Your task to perform on an android device: Find coffee shops on Maps Image 0: 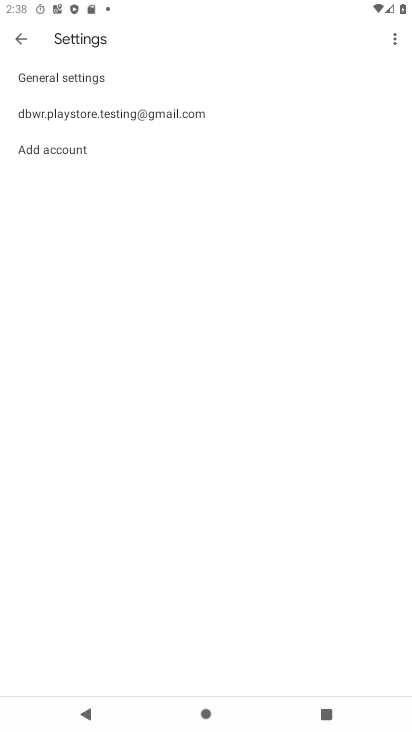
Step 0: press home button
Your task to perform on an android device: Find coffee shops on Maps Image 1: 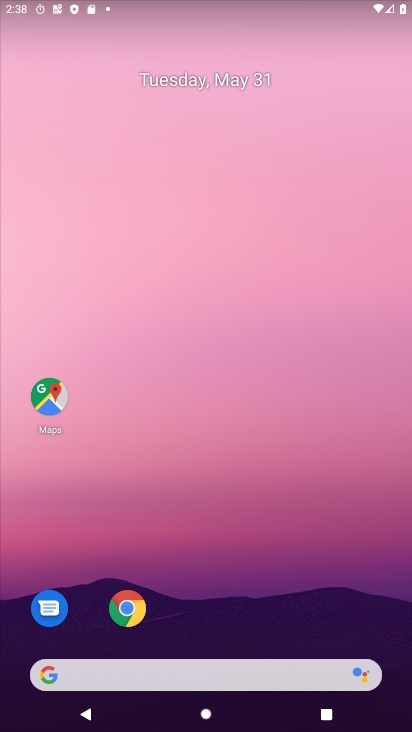
Step 1: drag from (193, 636) to (191, 315)
Your task to perform on an android device: Find coffee shops on Maps Image 2: 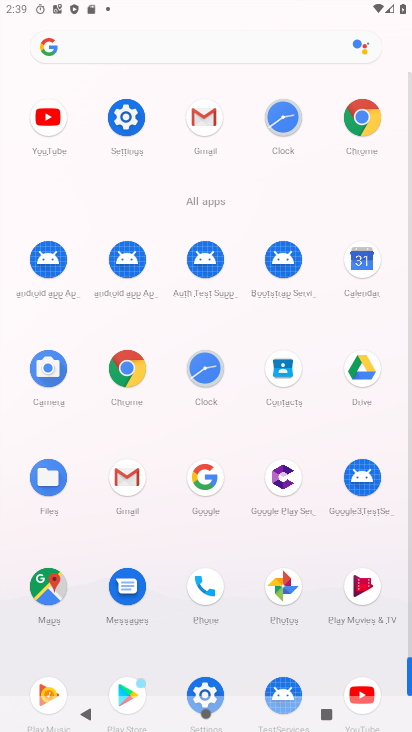
Step 2: click (52, 604)
Your task to perform on an android device: Find coffee shops on Maps Image 3: 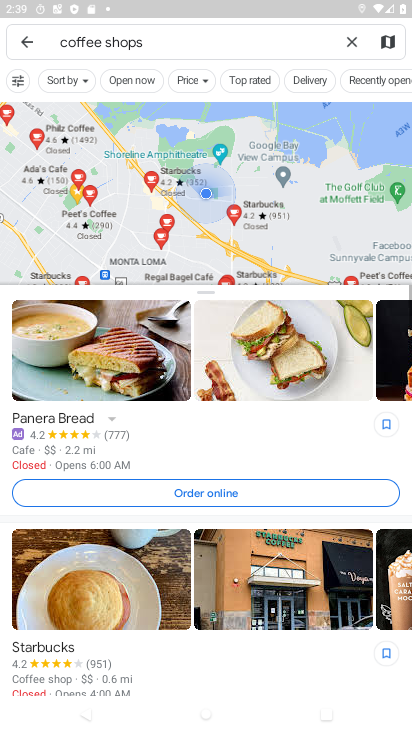
Step 3: task complete